Your task to perform on an android device: Open settings on Google Maps Image 0: 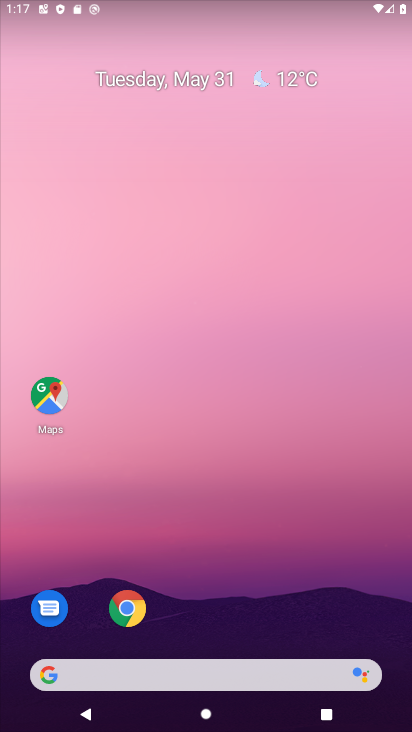
Step 0: drag from (326, 519) to (288, 212)
Your task to perform on an android device: Open settings on Google Maps Image 1: 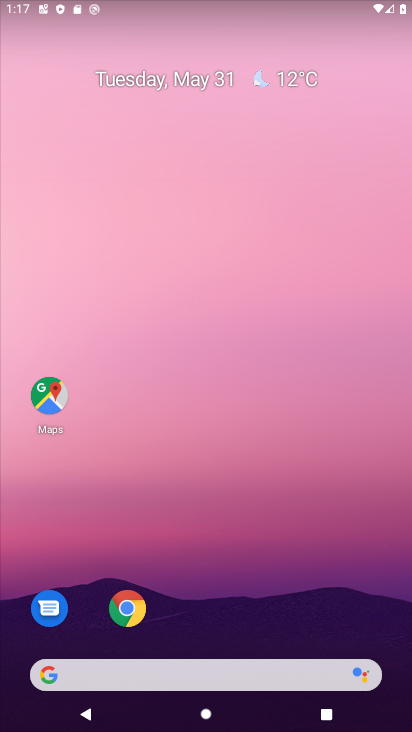
Step 1: drag from (280, 589) to (282, 174)
Your task to perform on an android device: Open settings on Google Maps Image 2: 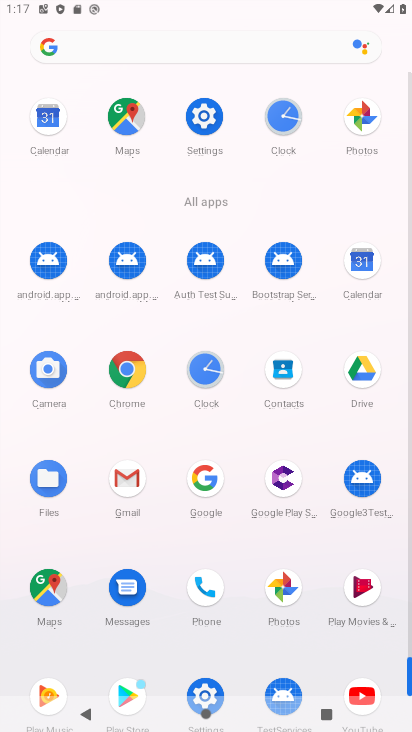
Step 2: click (201, 477)
Your task to perform on an android device: Open settings on Google Maps Image 3: 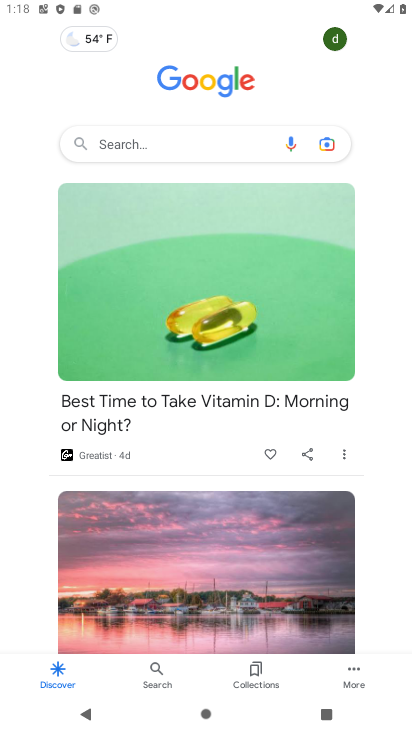
Step 3: press home button
Your task to perform on an android device: Open settings on Google Maps Image 4: 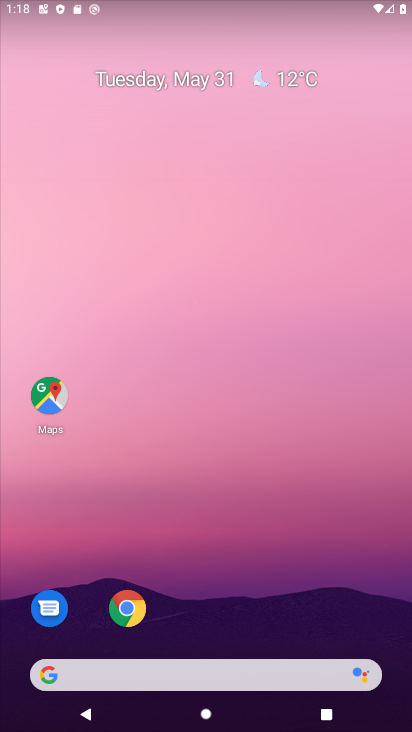
Step 4: drag from (242, 595) to (263, 177)
Your task to perform on an android device: Open settings on Google Maps Image 5: 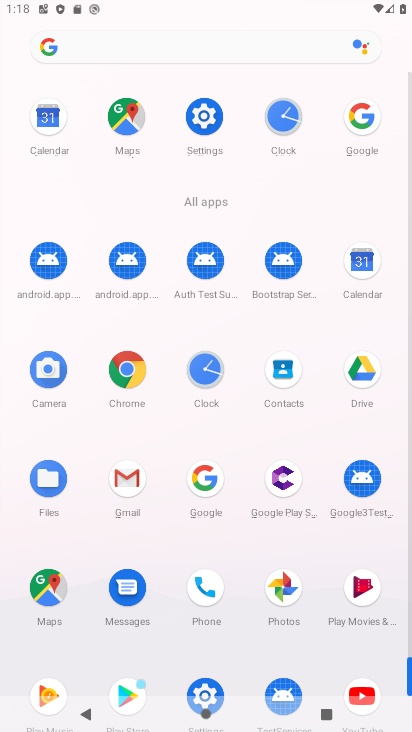
Step 5: click (45, 589)
Your task to perform on an android device: Open settings on Google Maps Image 6: 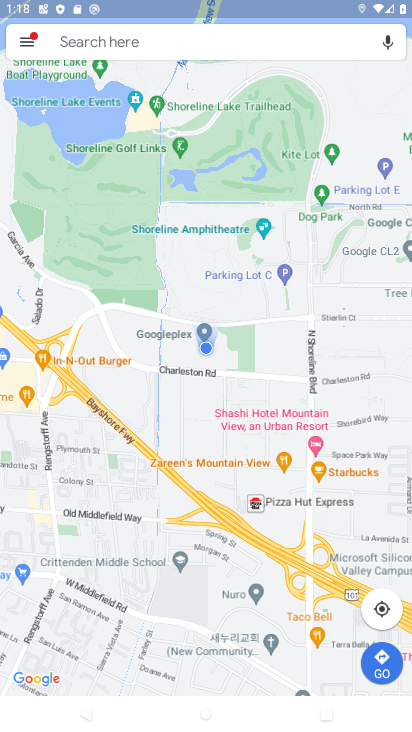
Step 6: click (11, 39)
Your task to perform on an android device: Open settings on Google Maps Image 7: 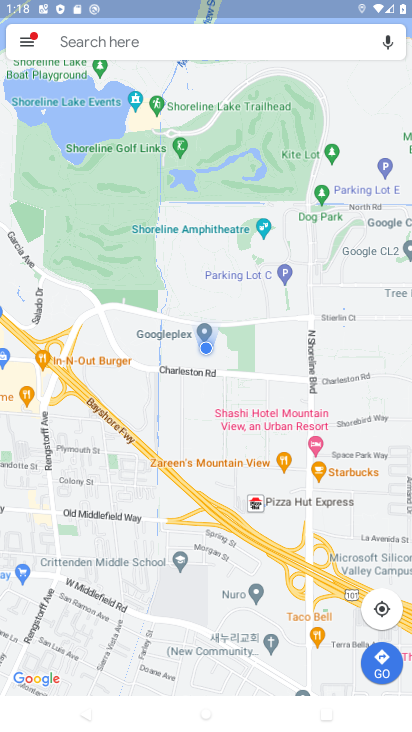
Step 7: click (29, 44)
Your task to perform on an android device: Open settings on Google Maps Image 8: 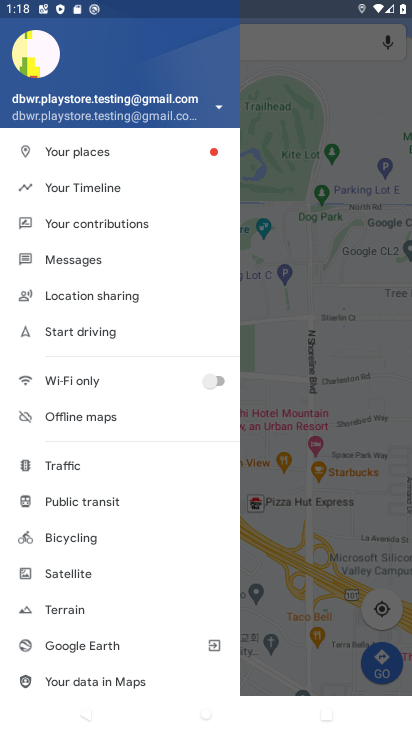
Step 8: click (62, 192)
Your task to perform on an android device: Open settings on Google Maps Image 9: 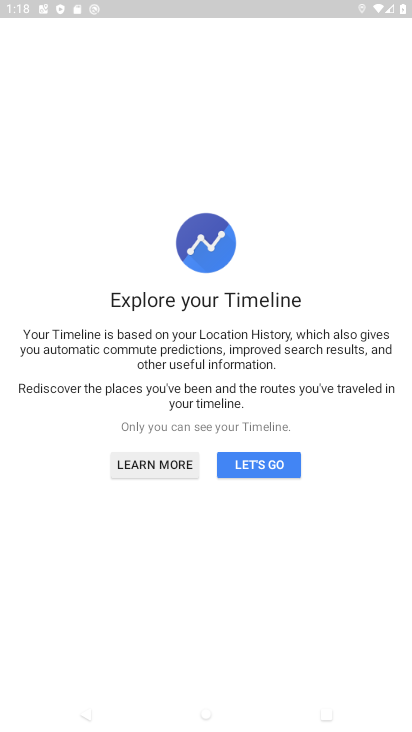
Step 9: click (258, 469)
Your task to perform on an android device: Open settings on Google Maps Image 10: 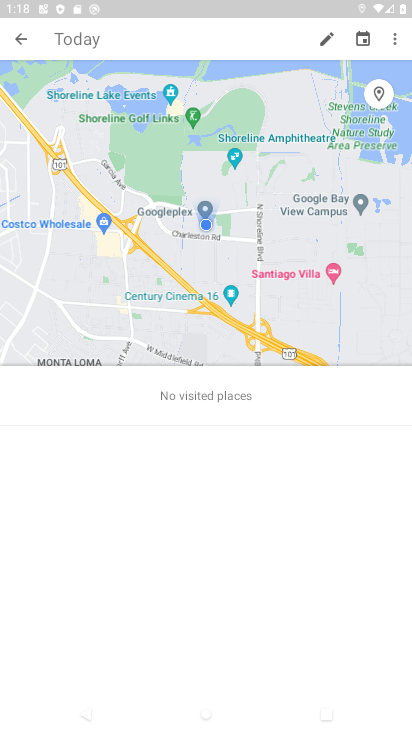
Step 10: click (390, 44)
Your task to perform on an android device: Open settings on Google Maps Image 11: 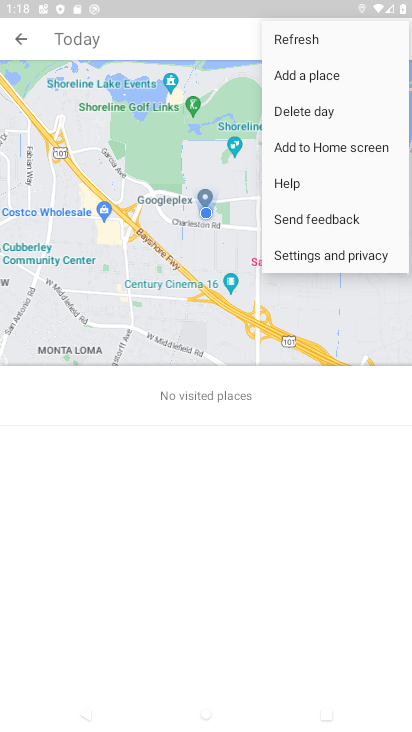
Step 11: click (291, 250)
Your task to perform on an android device: Open settings on Google Maps Image 12: 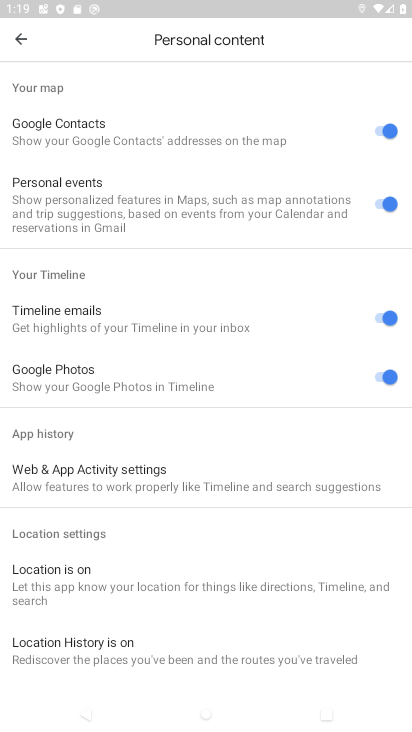
Step 12: task complete